Your task to perform on an android device: Turn on the flashlight Image 0: 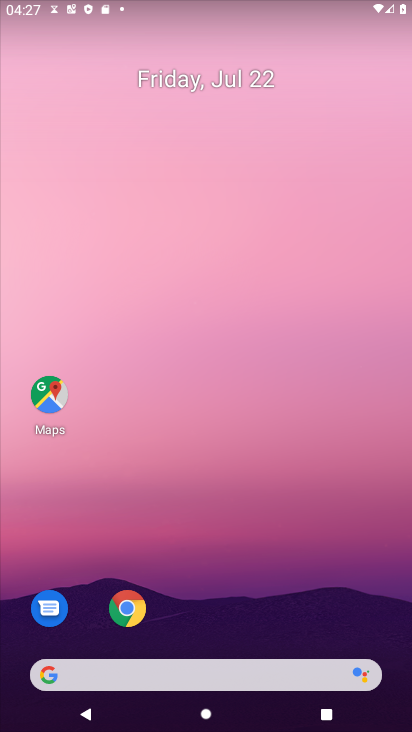
Step 0: drag from (233, 722) to (196, 119)
Your task to perform on an android device: Turn on the flashlight Image 1: 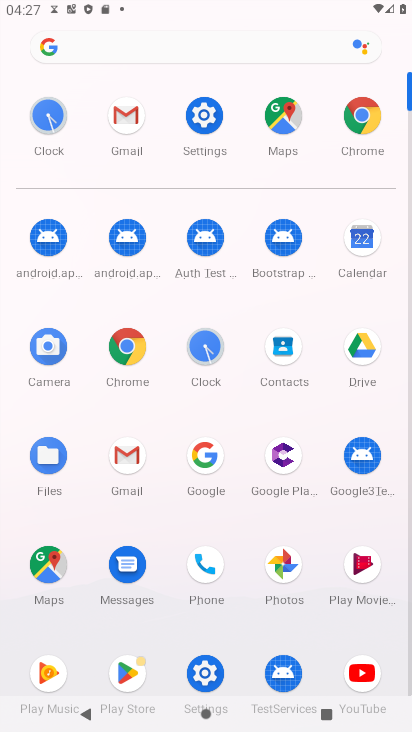
Step 1: click (204, 114)
Your task to perform on an android device: Turn on the flashlight Image 2: 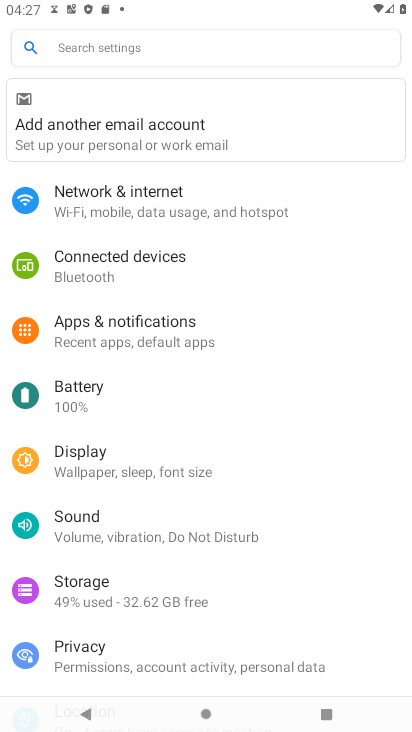
Step 2: task complete